Your task to perform on an android device: remove spam from my inbox in the gmail app Image 0: 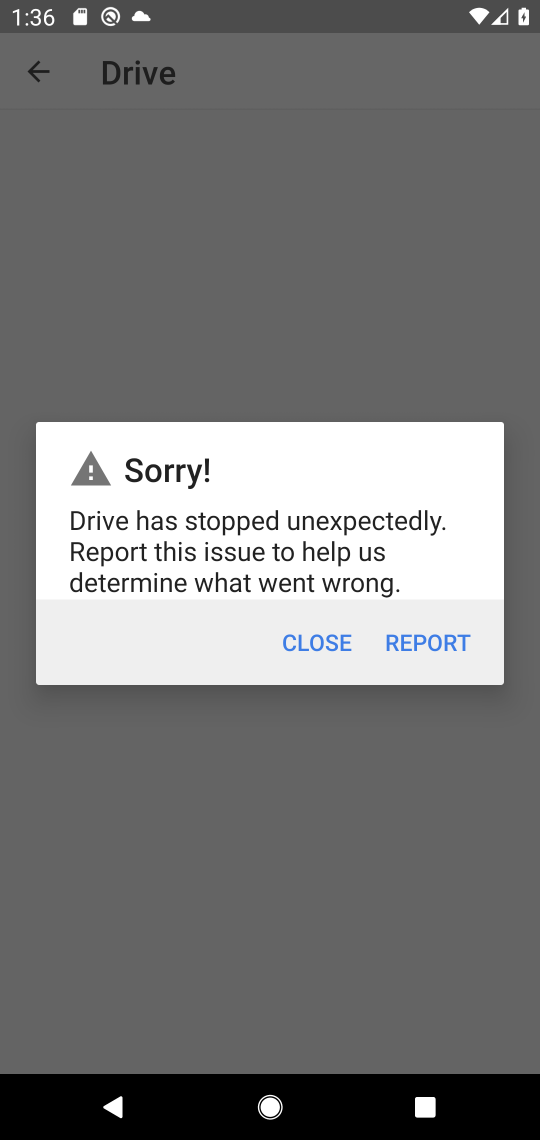
Step 0: press home button
Your task to perform on an android device: remove spam from my inbox in the gmail app Image 1: 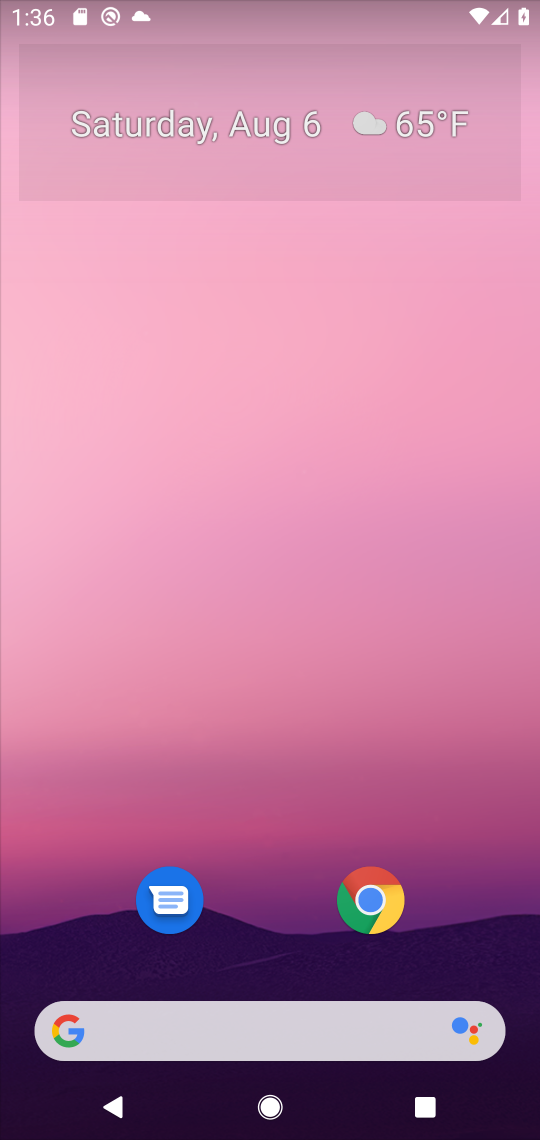
Step 1: drag from (276, 859) to (270, 218)
Your task to perform on an android device: remove spam from my inbox in the gmail app Image 2: 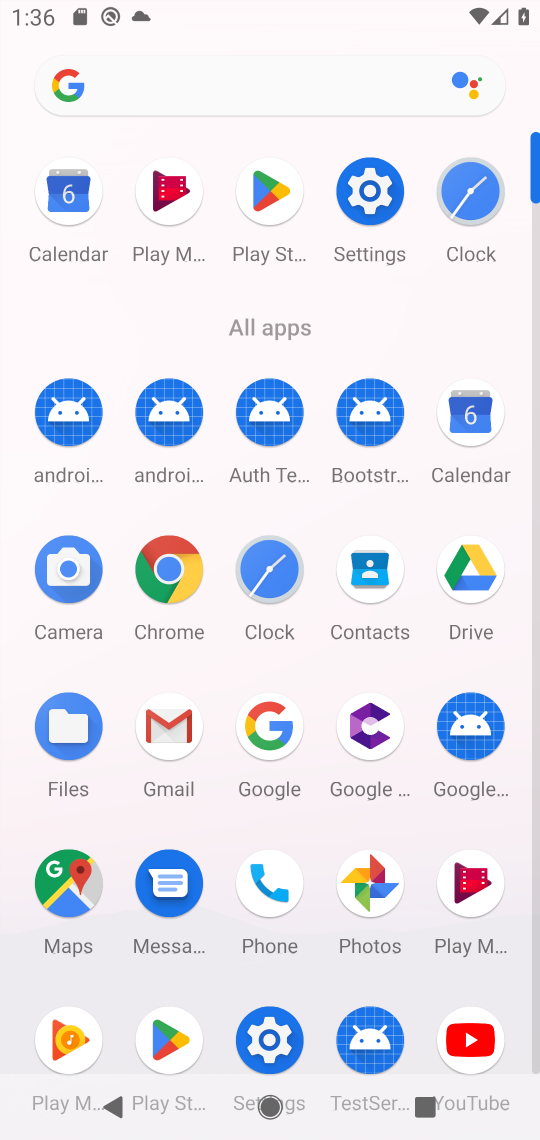
Step 2: click (157, 740)
Your task to perform on an android device: remove spam from my inbox in the gmail app Image 3: 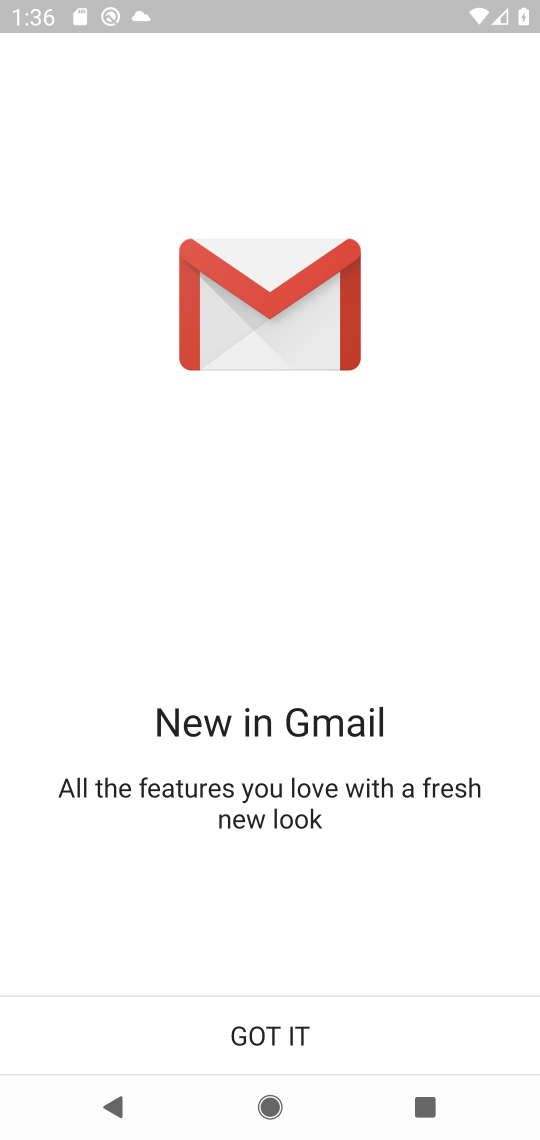
Step 3: click (251, 1040)
Your task to perform on an android device: remove spam from my inbox in the gmail app Image 4: 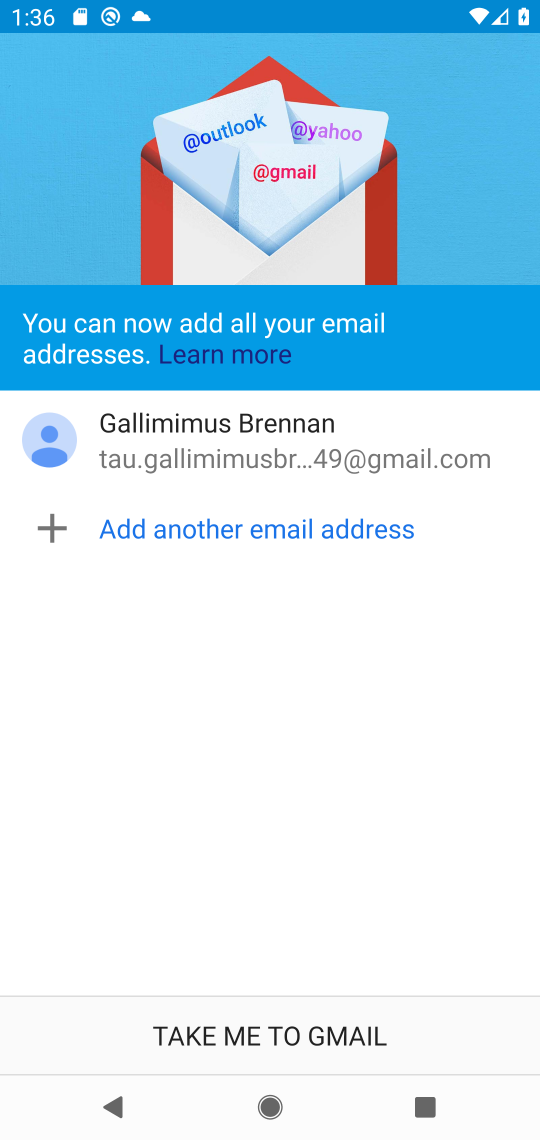
Step 4: click (251, 1040)
Your task to perform on an android device: remove spam from my inbox in the gmail app Image 5: 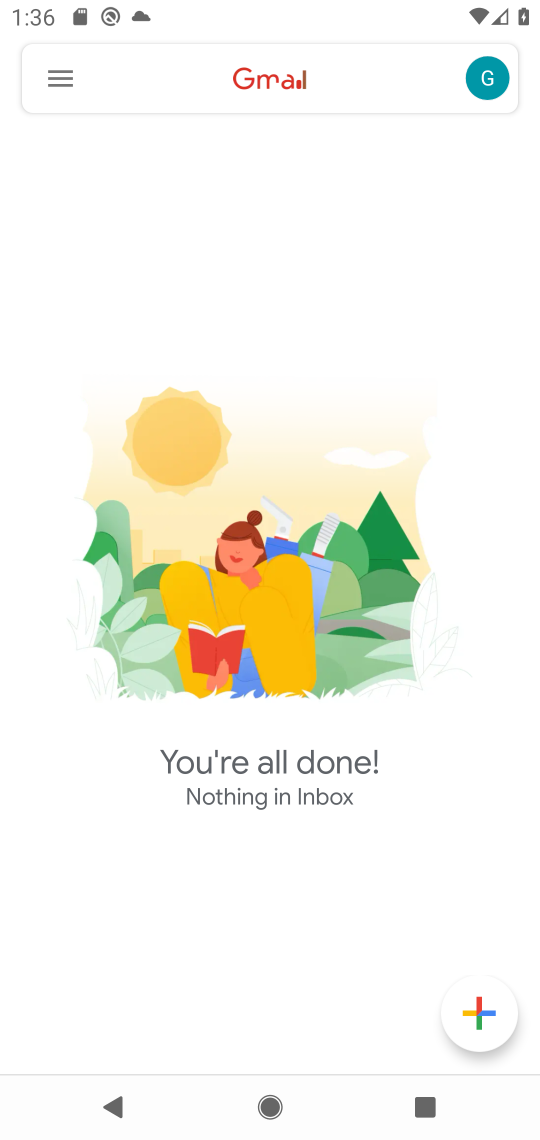
Step 5: click (66, 79)
Your task to perform on an android device: remove spam from my inbox in the gmail app Image 6: 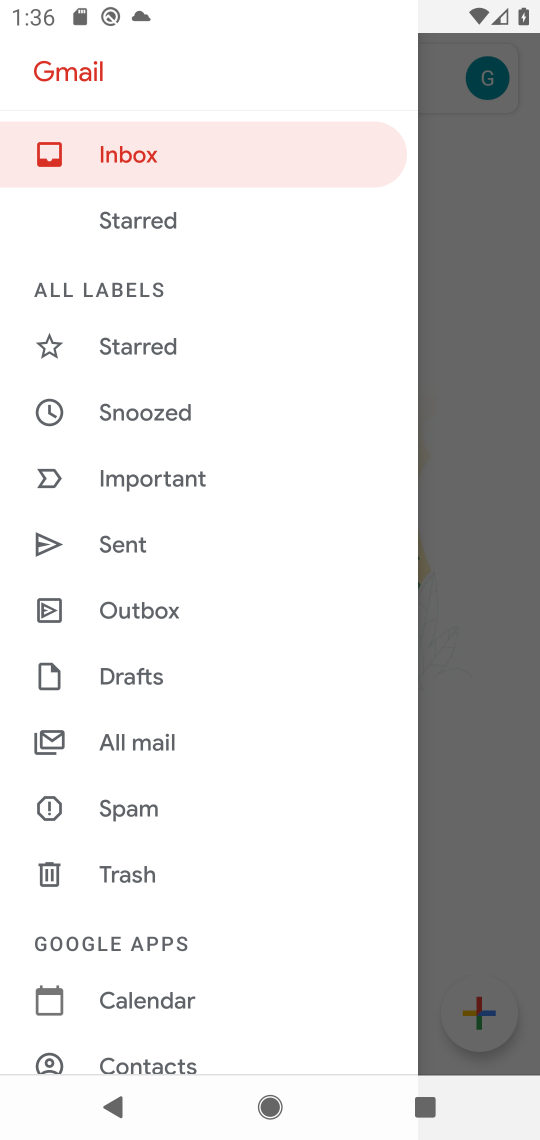
Step 6: click (102, 160)
Your task to perform on an android device: remove spam from my inbox in the gmail app Image 7: 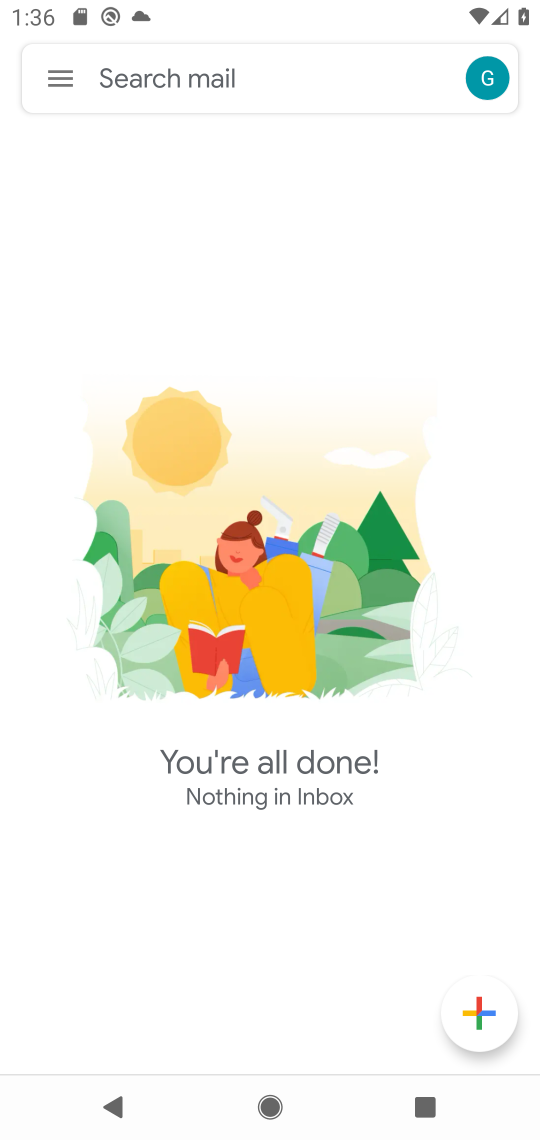
Step 7: task complete